Your task to perform on an android device: What's the news in Brunei? Image 0: 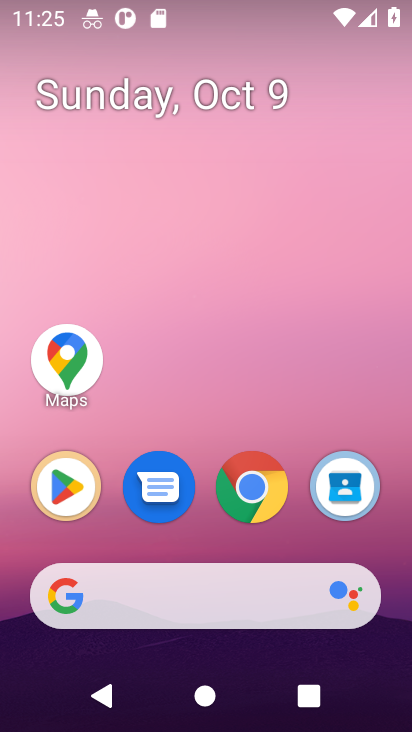
Step 0: click (258, 495)
Your task to perform on an android device: What's the news in Brunei? Image 1: 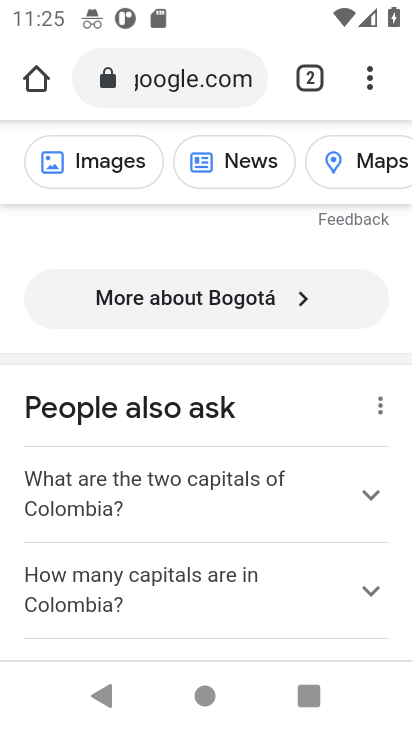
Step 1: click (198, 88)
Your task to perform on an android device: What's the news in Brunei? Image 2: 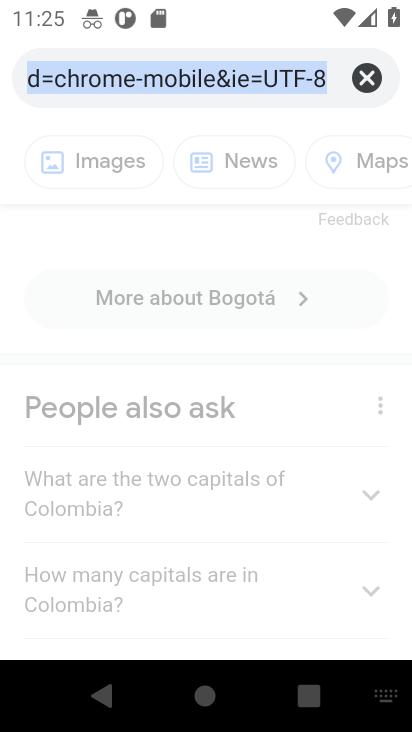
Step 2: type "news in brunei"
Your task to perform on an android device: What's the news in Brunei? Image 3: 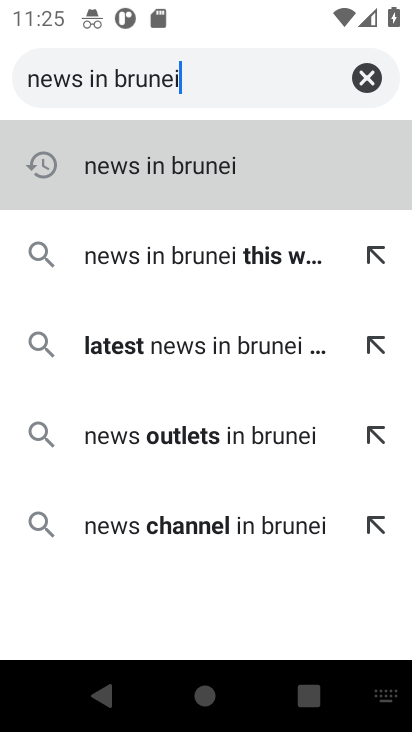
Step 3: type ""
Your task to perform on an android device: What's the news in Brunei? Image 4: 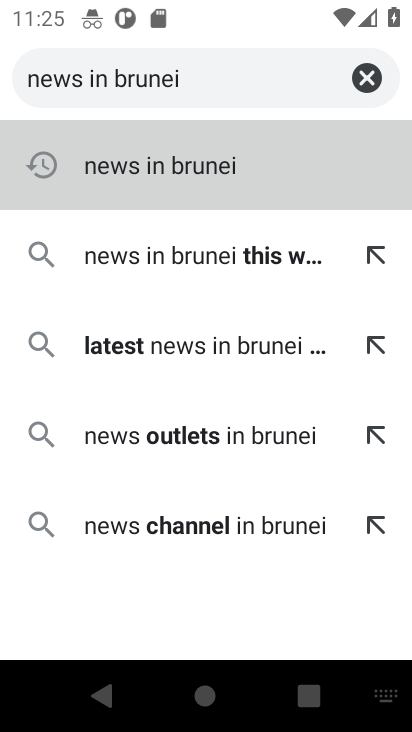
Step 4: press enter
Your task to perform on an android device: What's the news in Brunei? Image 5: 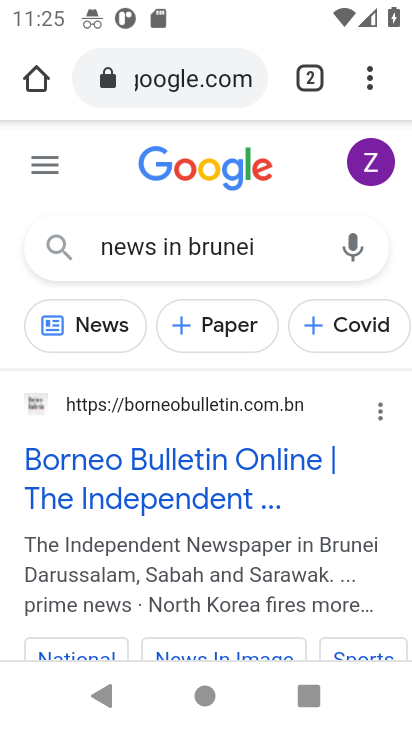
Step 5: drag from (209, 547) to (207, 451)
Your task to perform on an android device: What's the news in Brunei? Image 6: 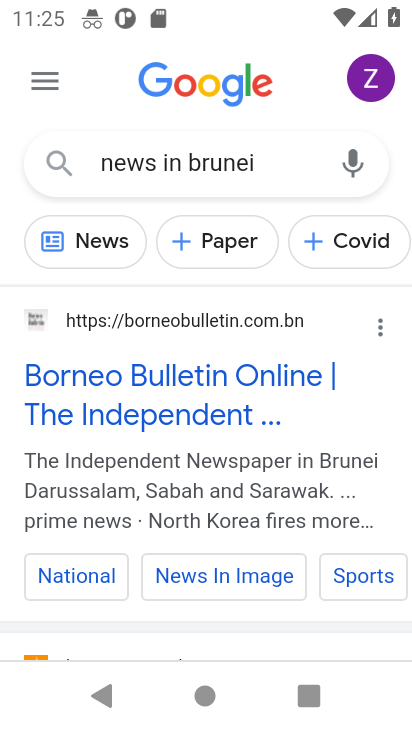
Step 6: click (94, 252)
Your task to perform on an android device: What's the news in Brunei? Image 7: 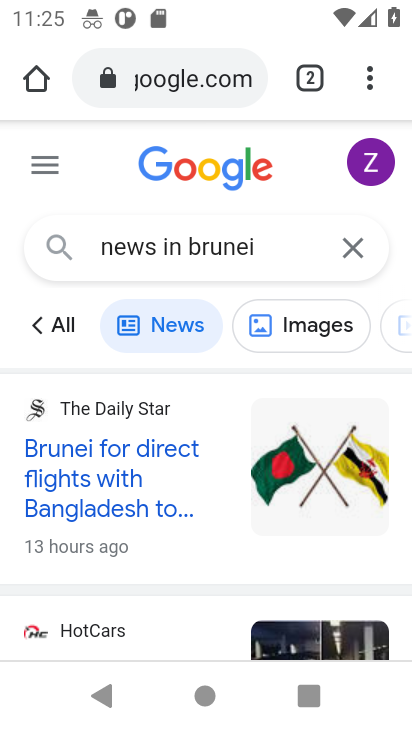
Step 7: drag from (166, 531) to (179, 278)
Your task to perform on an android device: What's the news in Brunei? Image 8: 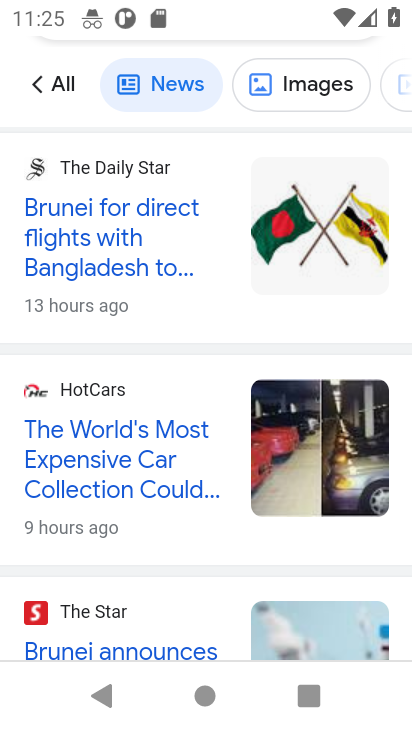
Step 8: drag from (184, 557) to (197, 386)
Your task to perform on an android device: What's the news in Brunei? Image 9: 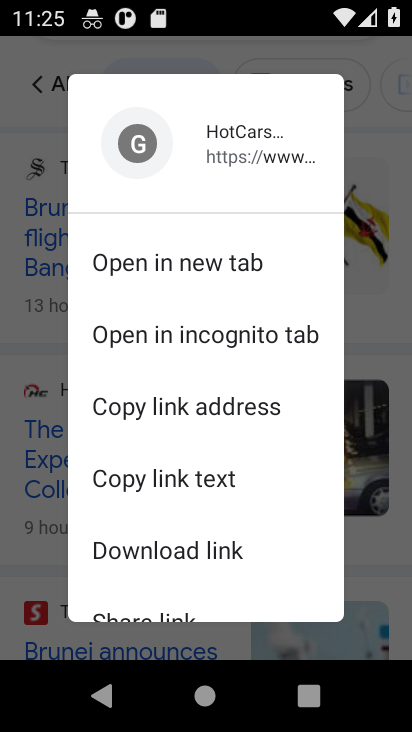
Step 9: drag from (372, 545) to (365, 467)
Your task to perform on an android device: What's the news in Brunei? Image 10: 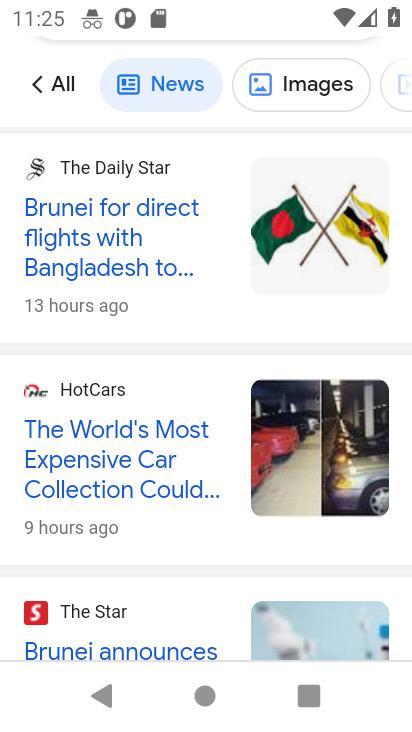
Step 10: drag from (220, 572) to (226, 327)
Your task to perform on an android device: What's the news in Brunei? Image 11: 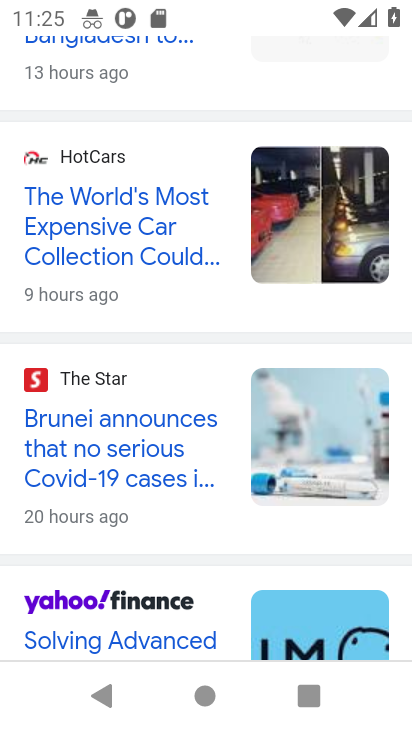
Step 11: drag from (177, 541) to (178, 329)
Your task to perform on an android device: What's the news in Brunei? Image 12: 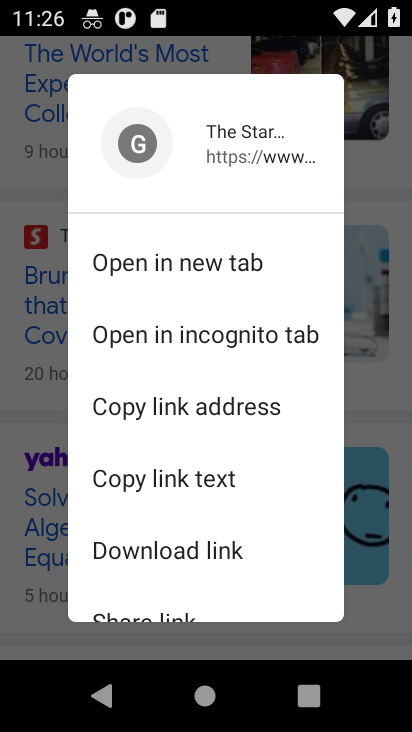
Step 12: click (384, 462)
Your task to perform on an android device: What's the news in Brunei? Image 13: 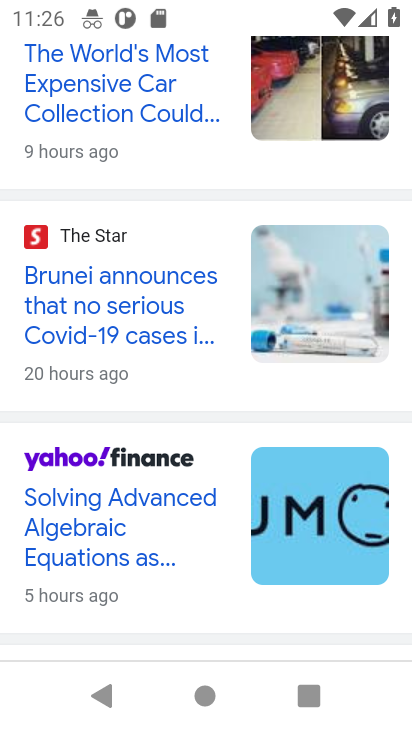
Step 13: task complete